Your task to perform on an android device: turn off improve location accuracy Image 0: 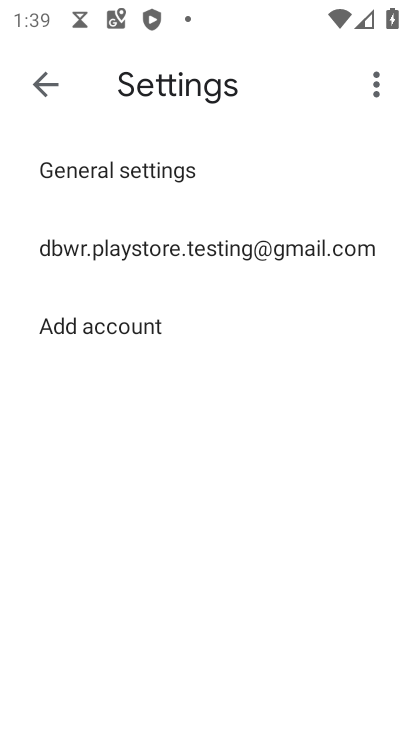
Step 0: press home button
Your task to perform on an android device: turn off improve location accuracy Image 1: 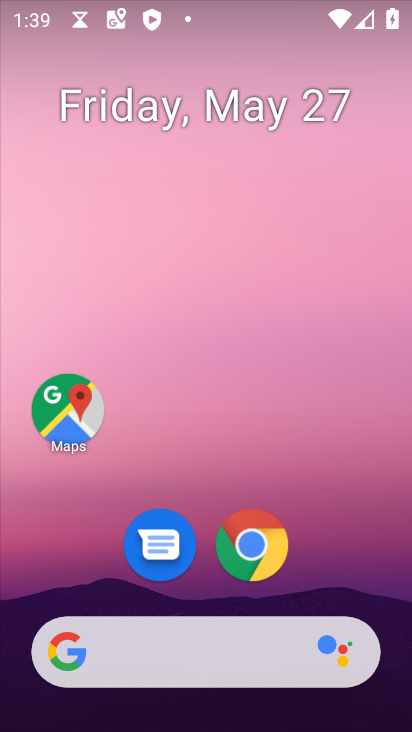
Step 1: drag from (352, 504) to (233, 0)
Your task to perform on an android device: turn off improve location accuracy Image 2: 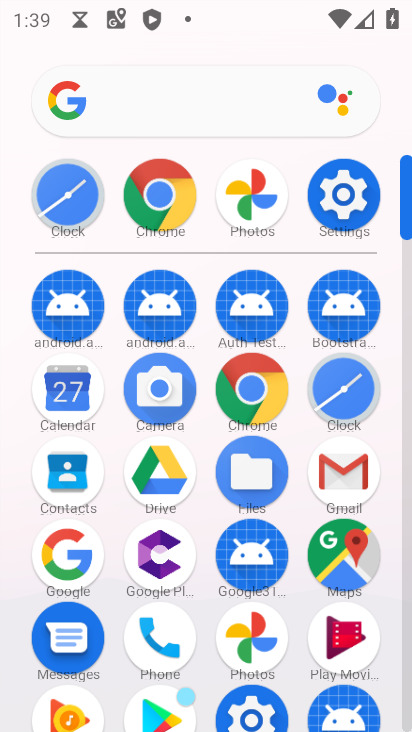
Step 2: click (347, 179)
Your task to perform on an android device: turn off improve location accuracy Image 3: 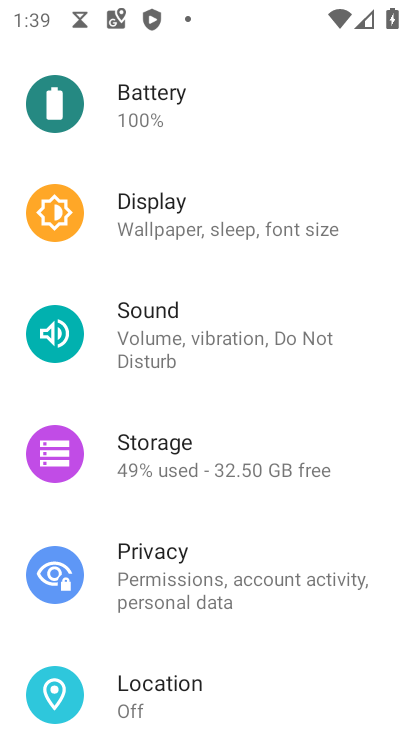
Step 3: click (232, 691)
Your task to perform on an android device: turn off improve location accuracy Image 4: 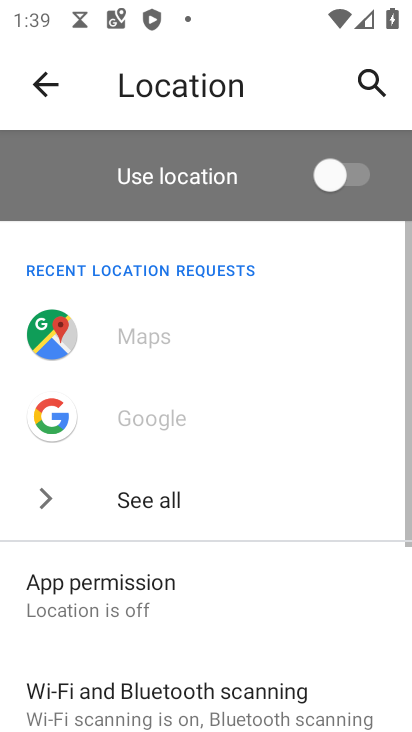
Step 4: drag from (226, 567) to (285, 170)
Your task to perform on an android device: turn off improve location accuracy Image 5: 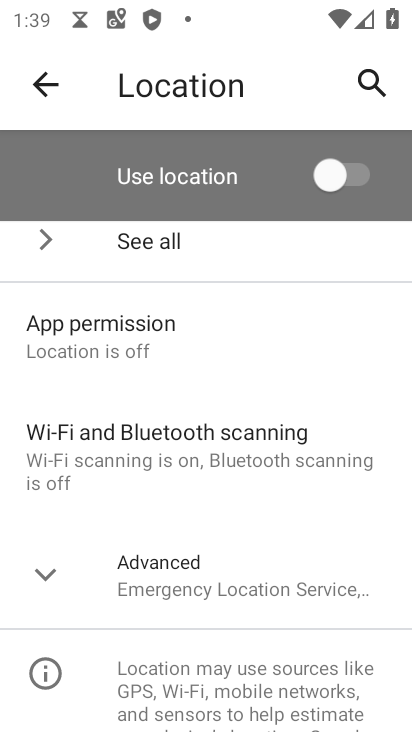
Step 5: click (213, 591)
Your task to perform on an android device: turn off improve location accuracy Image 6: 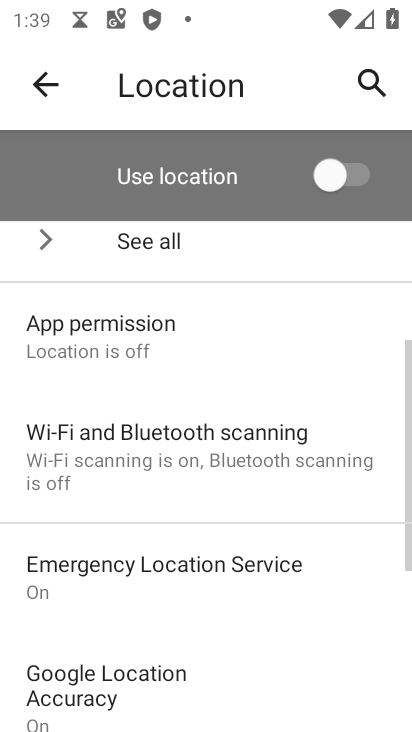
Step 6: drag from (225, 682) to (227, 636)
Your task to perform on an android device: turn off improve location accuracy Image 7: 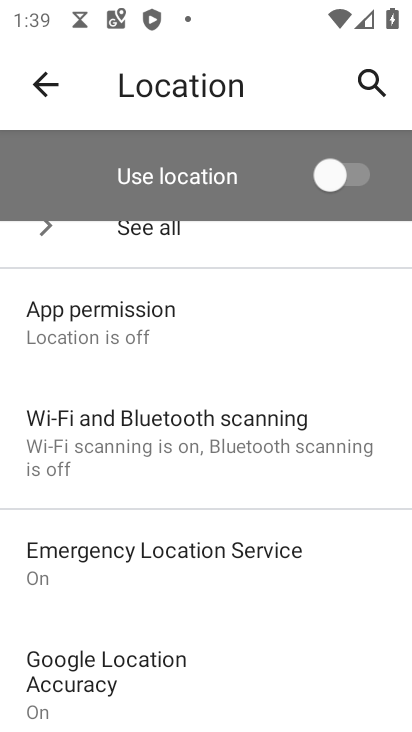
Step 7: click (227, 666)
Your task to perform on an android device: turn off improve location accuracy Image 8: 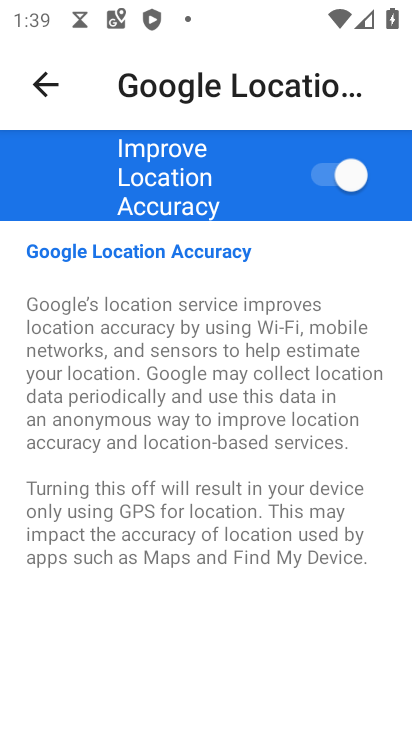
Step 8: click (361, 166)
Your task to perform on an android device: turn off improve location accuracy Image 9: 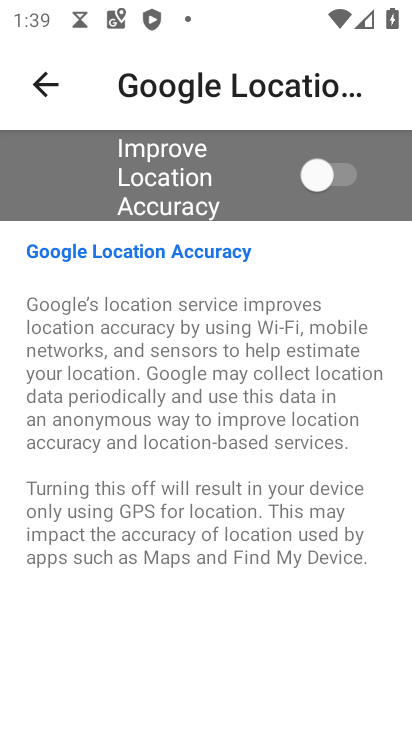
Step 9: task complete